Your task to perform on an android device: find photos in the google photos app Image 0: 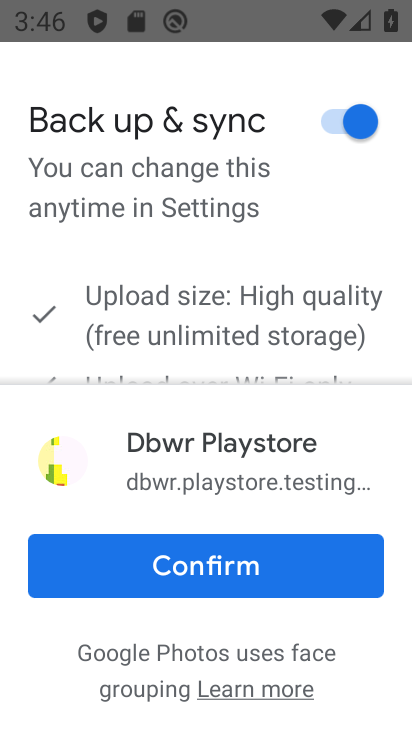
Step 0: press home button
Your task to perform on an android device: find photos in the google photos app Image 1: 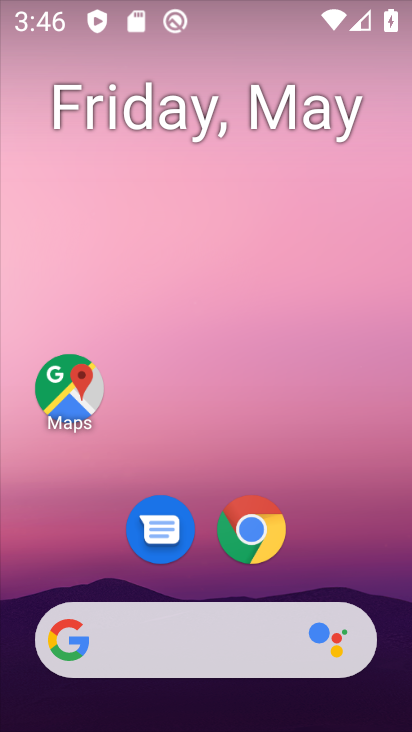
Step 1: drag from (269, 638) to (352, 258)
Your task to perform on an android device: find photos in the google photos app Image 2: 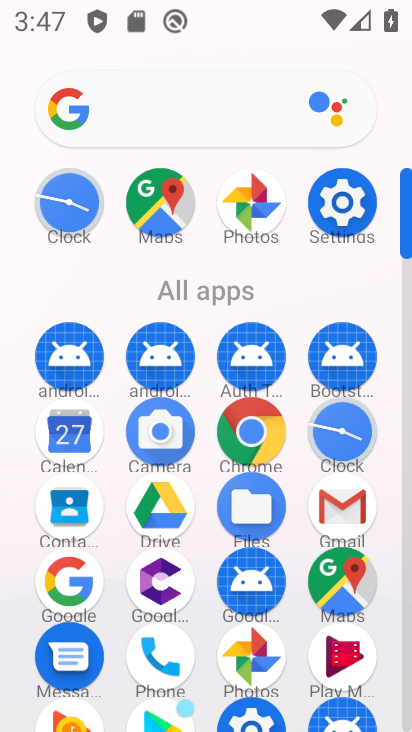
Step 2: drag from (264, 667) to (300, 512)
Your task to perform on an android device: find photos in the google photos app Image 3: 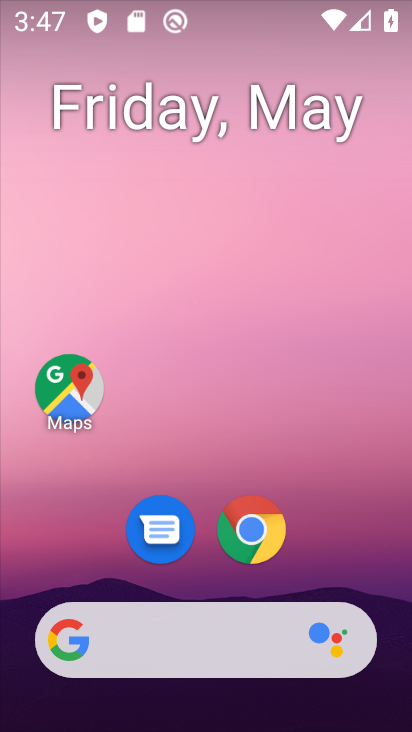
Step 3: drag from (248, 645) to (296, 284)
Your task to perform on an android device: find photos in the google photos app Image 4: 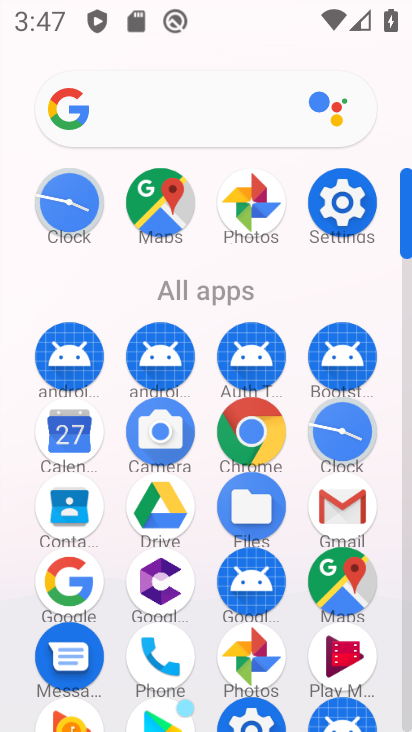
Step 4: drag from (225, 488) to (264, 333)
Your task to perform on an android device: find photos in the google photos app Image 5: 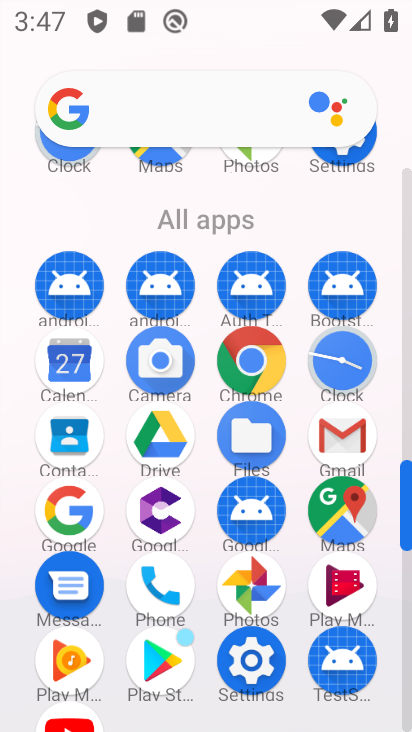
Step 5: click (246, 588)
Your task to perform on an android device: find photos in the google photos app Image 6: 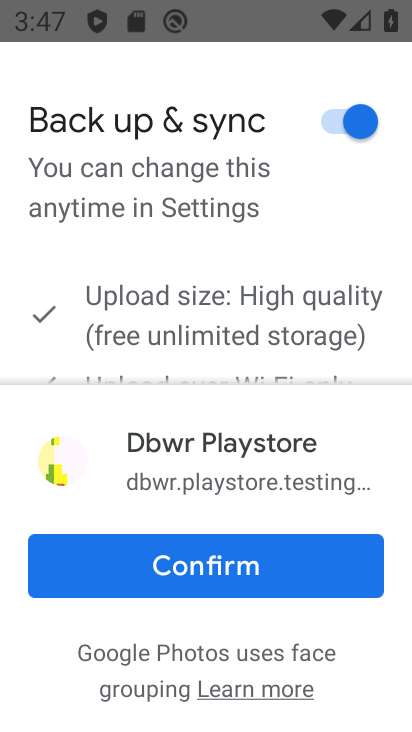
Step 6: click (246, 588)
Your task to perform on an android device: find photos in the google photos app Image 7: 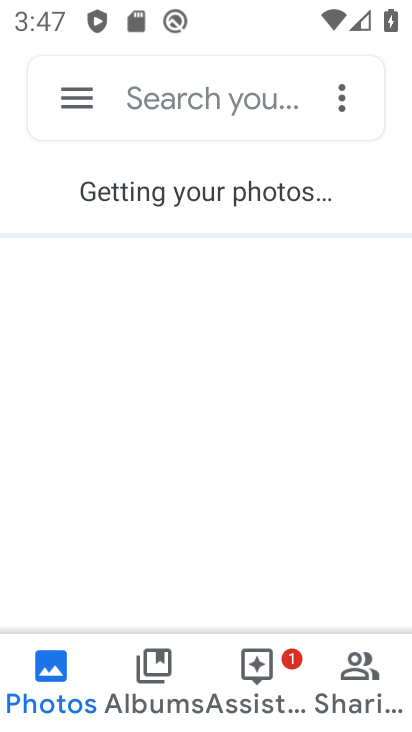
Step 7: click (80, 89)
Your task to perform on an android device: find photos in the google photos app Image 8: 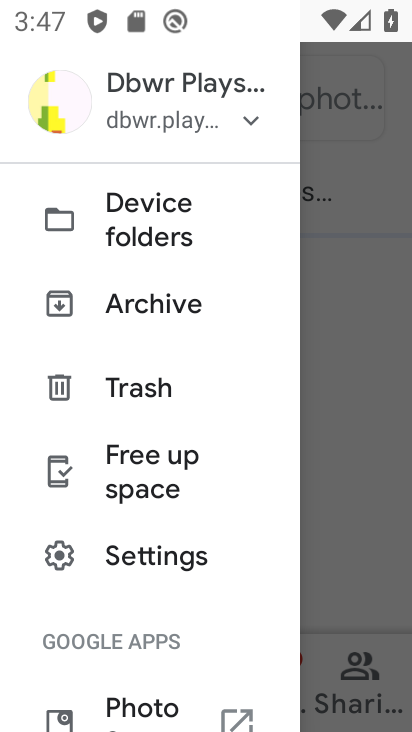
Step 8: click (334, 270)
Your task to perform on an android device: find photos in the google photos app Image 9: 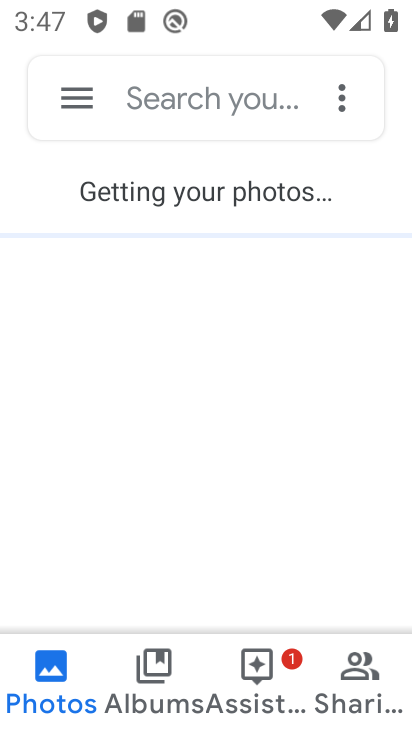
Step 9: task complete